Your task to perform on an android device: change alarm snooze length Image 0: 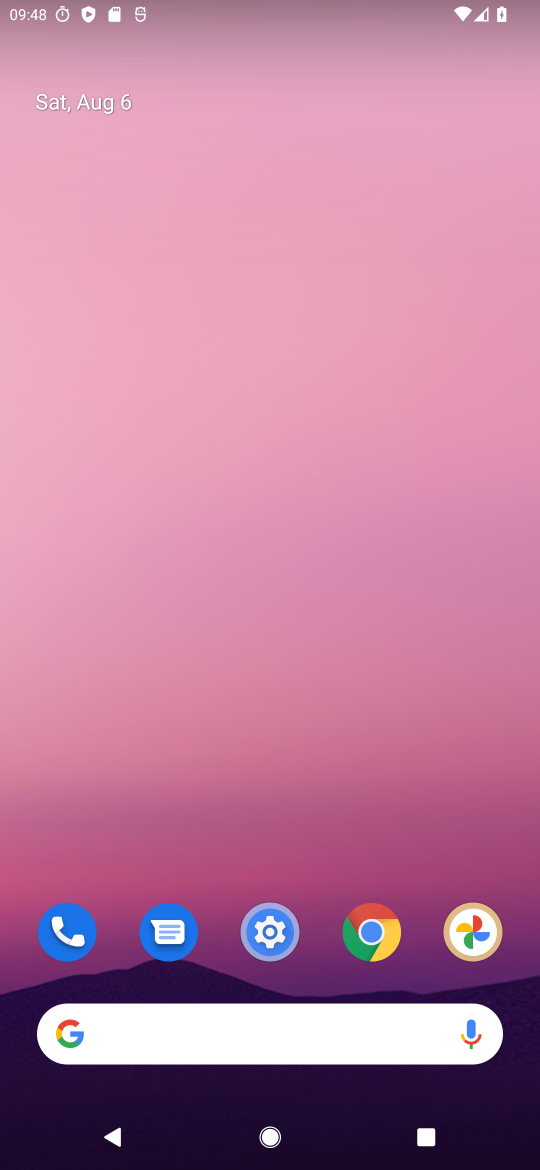
Step 0: press home button
Your task to perform on an android device: change alarm snooze length Image 1: 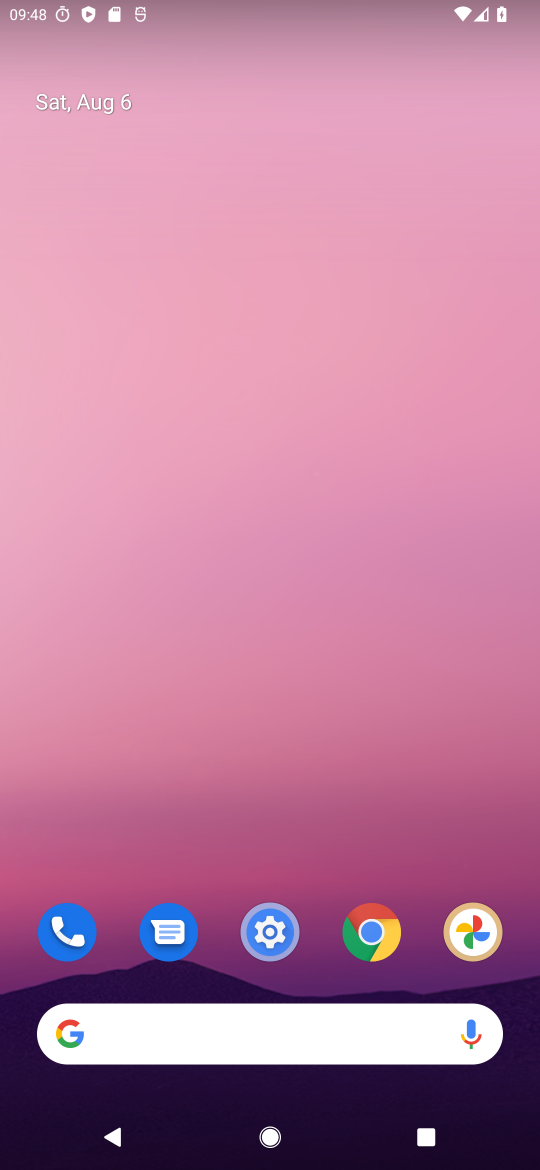
Step 1: drag from (304, 1034) to (367, 229)
Your task to perform on an android device: change alarm snooze length Image 2: 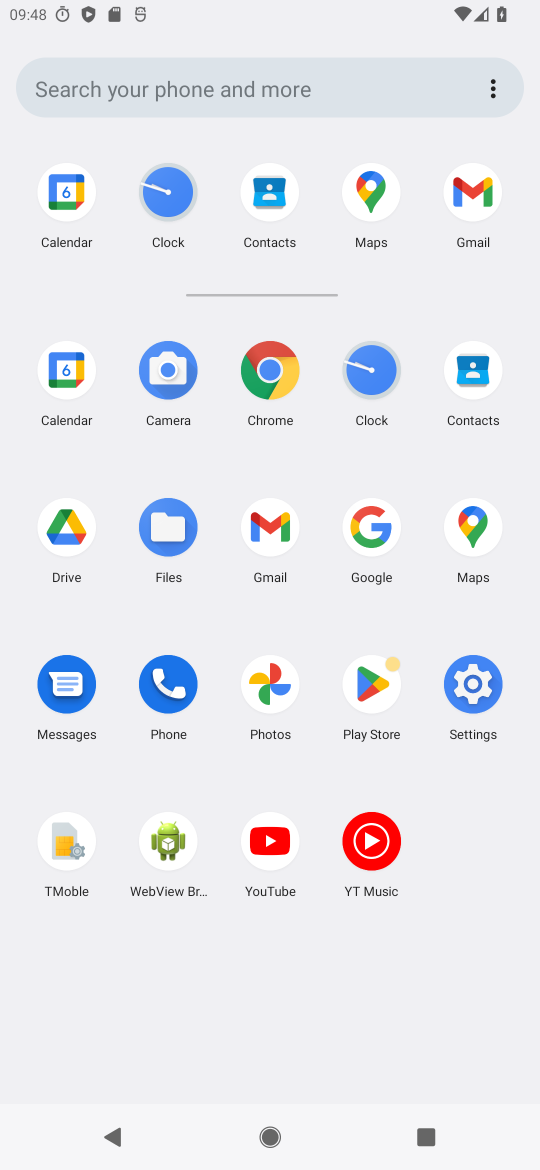
Step 2: click (170, 200)
Your task to perform on an android device: change alarm snooze length Image 3: 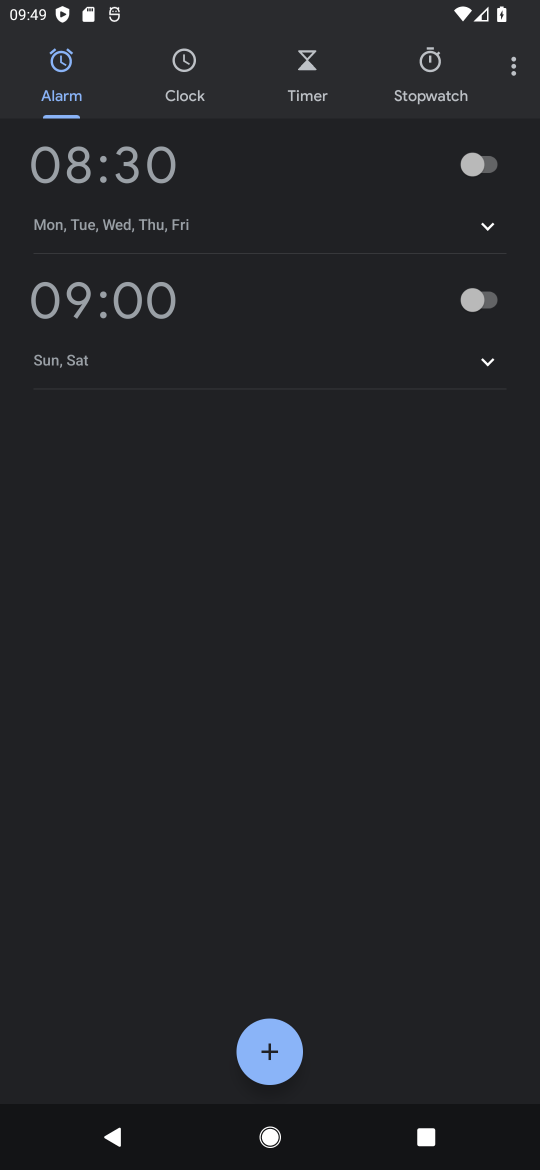
Step 3: click (517, 66)
Your task to perform on an android device: change alarm snooze length Image 4: 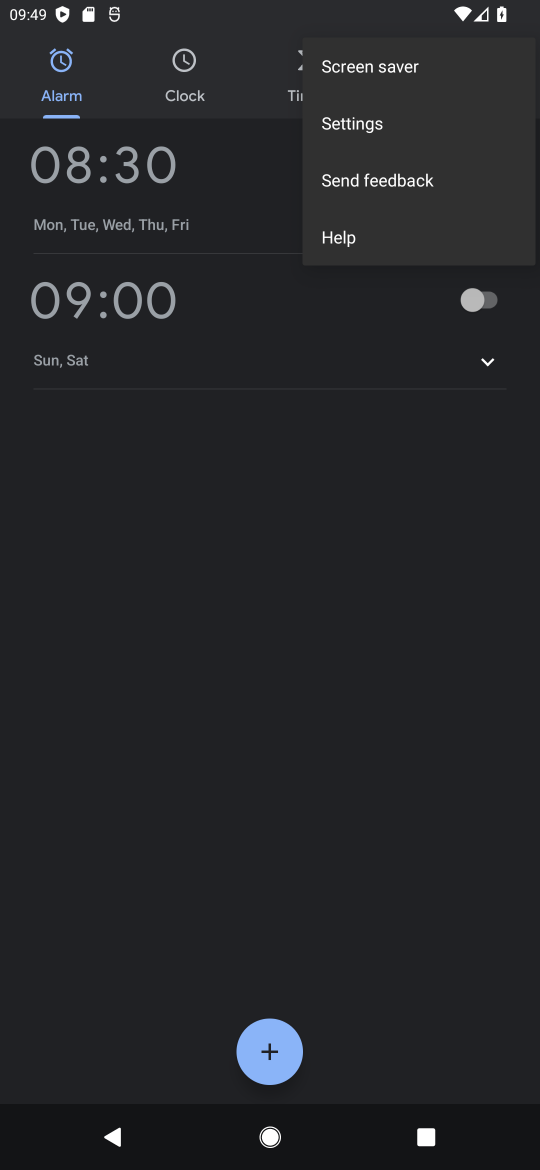
Step 4: click (359, 129)
Your task to perform on an android device: change alarm snooze length Image 5: 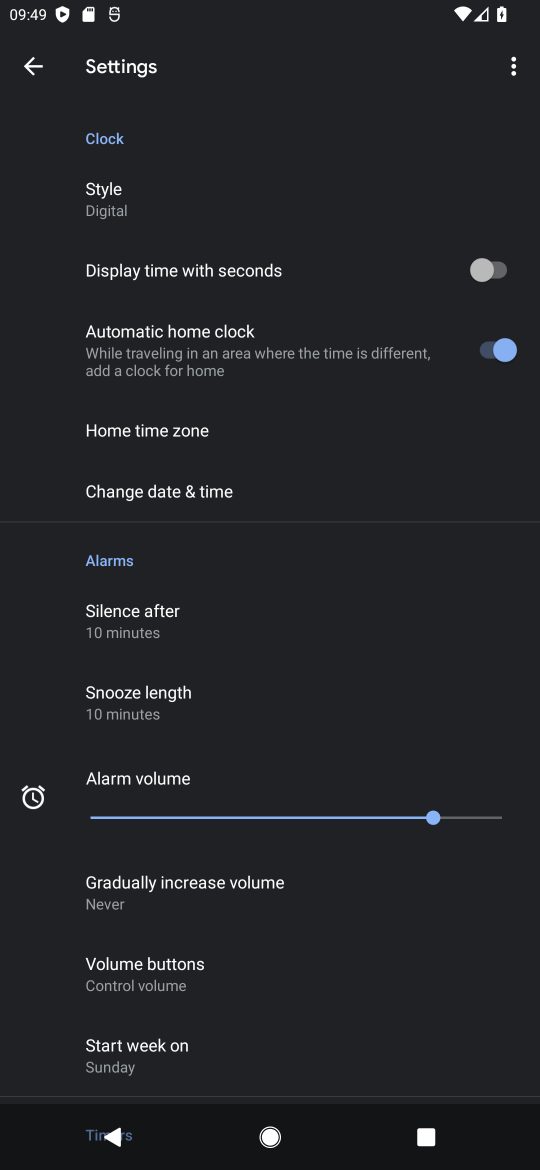
Step 5: click (121, 692)
Your task to perform on an android device: change alarm snooze length Image 6: 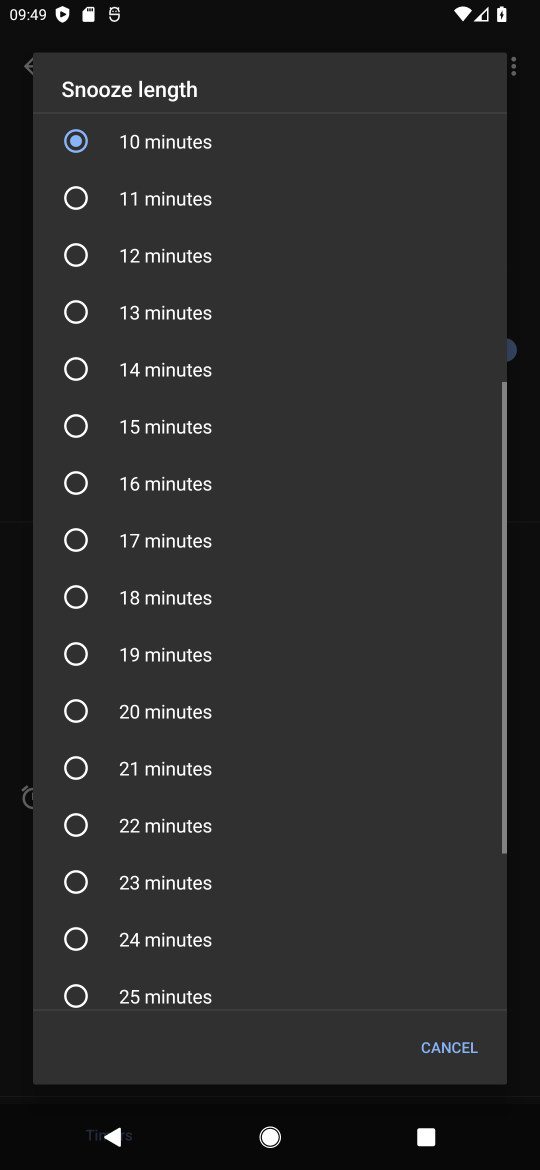
Step 6: click (76, 431)
Your task to perform on an android device: change alarm snooze length Image 7: 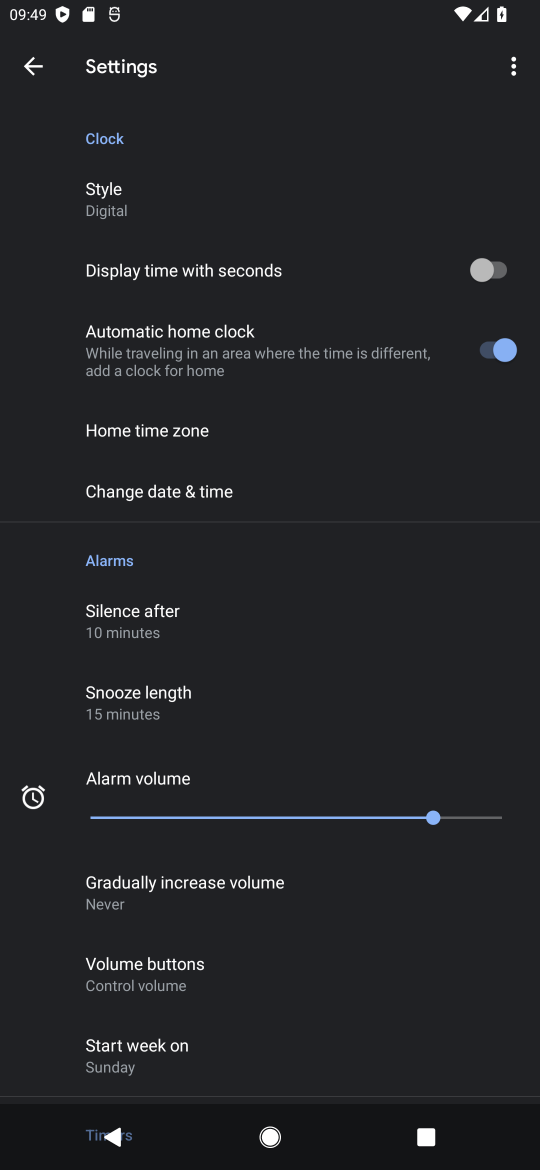
Step 7: task complete